Your task to perform on an android device: Search for seafood restaurants on Google Maps Image 0: 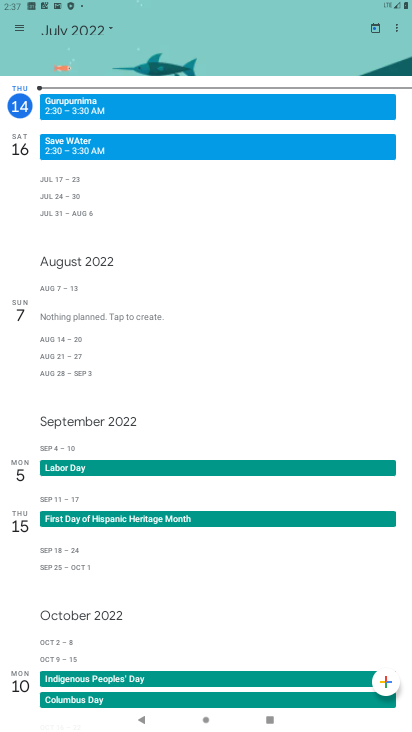
Step 0: press home button
Your task to perform on an android device: Search for seafood restaurants on Google Maps Image 1: 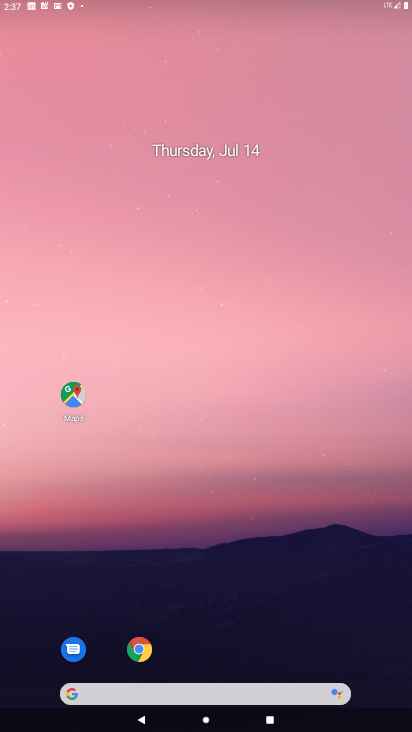
Step 1: drag from (353, 657) to (150, 1)
Your task to perform on an android device: Search for seafood restaurants on Google Maps Image 2: 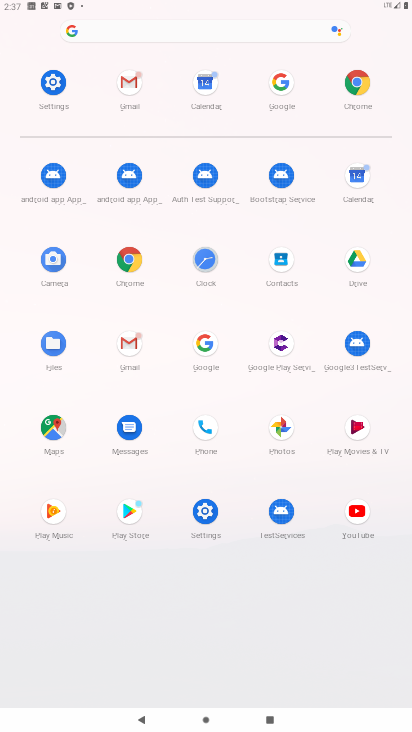
Step 2: click (54, 420)
Your task to perform on an android device: Search for seafood restaurants on Google Maps Image 3: 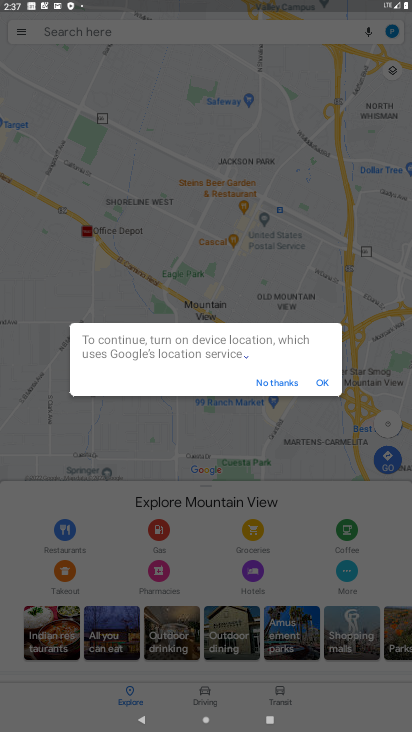
Step 3: click (323, 389)
Your task to perform on an android device: Search for seafood restaurants on Google Maps Image 4: 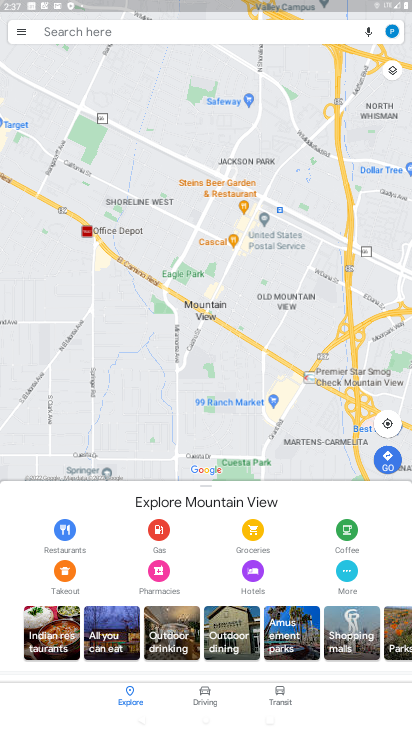
Step 4: click (72, 35)
Your task to perform on an android device: Search for seafood restaurants on Google Maps Image 5: 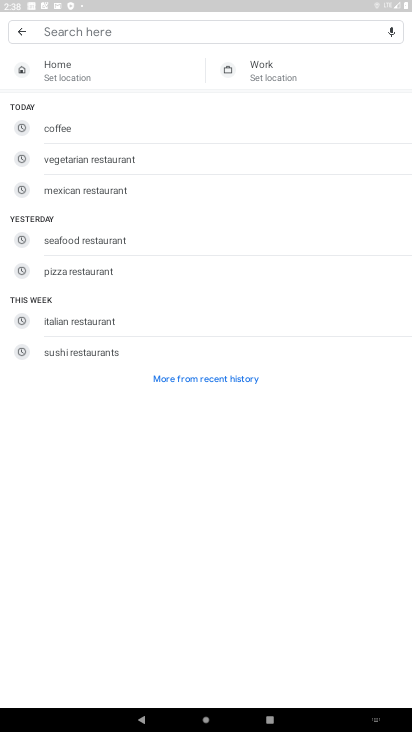
Step 5: click (67, 239)
Your task to perform on an android device: Search for seafood restaurants on Google Maps Image 6: 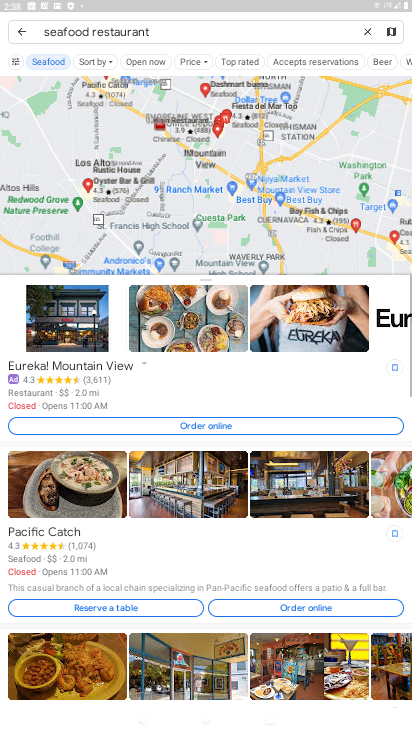
Step 6: task complete